Your task to perform on an android device: see sites visited before in the chrome app Image 0: 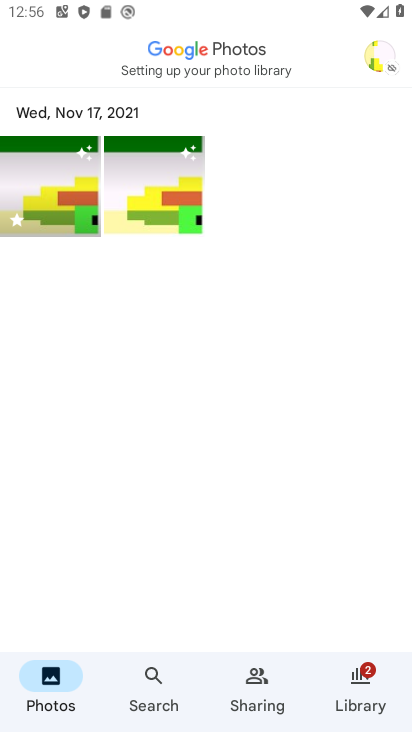
Step 0: press home button
Your task to perform on an android device: see sites visited before in the chrome app Image 1: 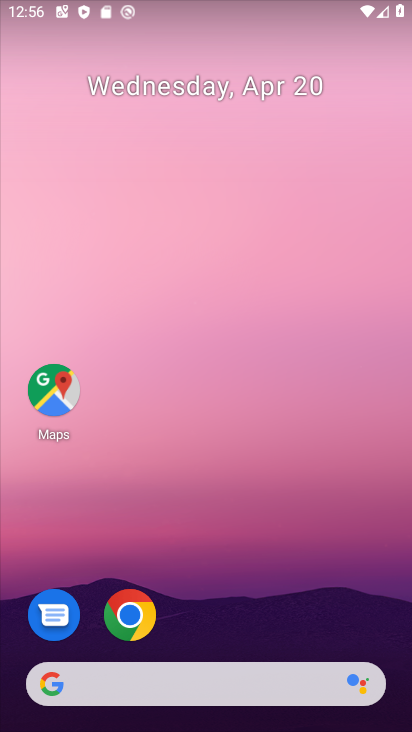
Step 1: click (132, 617)
Your task to perform on an android device: see sites visited before in the chrome app Image 2: 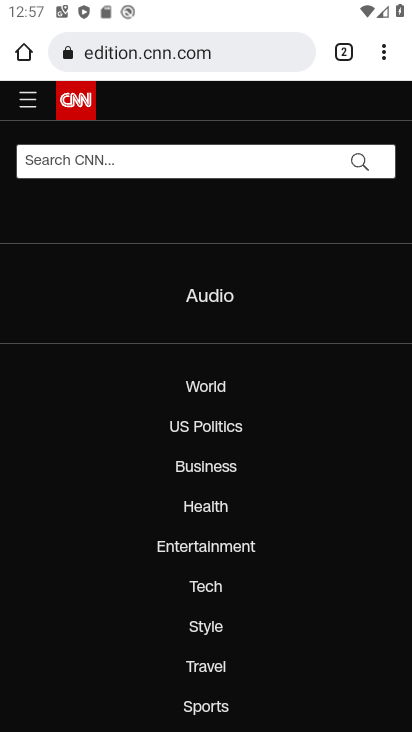
Step 2: click (382, 42)
Your task to perform on an android device: see sites visited before in the chrome app Image 3: 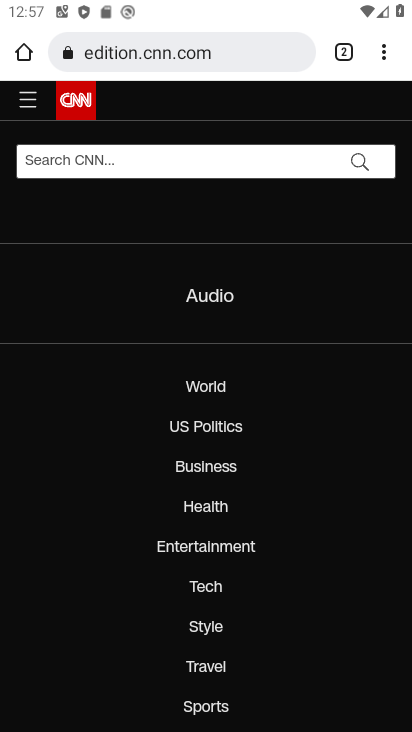
Step 3: click (384, 47)
Your task to perform on an android device: see sites visited before in the chrome app Image 4: 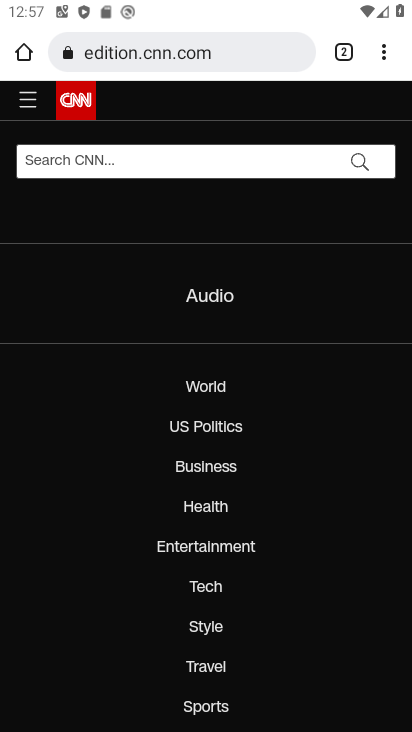
Step 4: click (384, 47)
Your task to perform on an android device: see sites visited before in the chrome app Image 5: 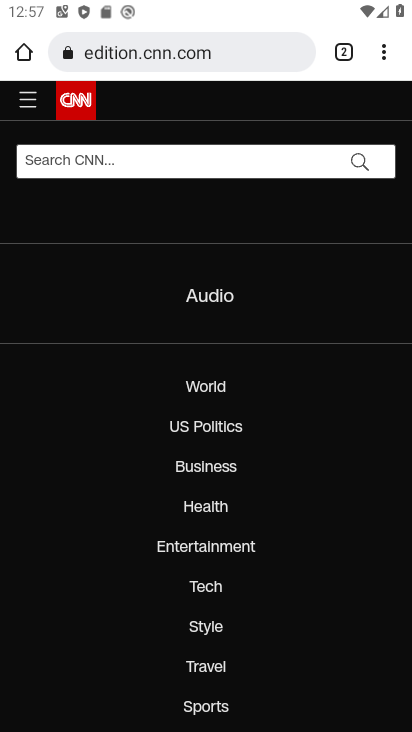
Step 5: click (384, 47)
Your task to perform on an android device: see sites visited before in the chrome app Image 6: 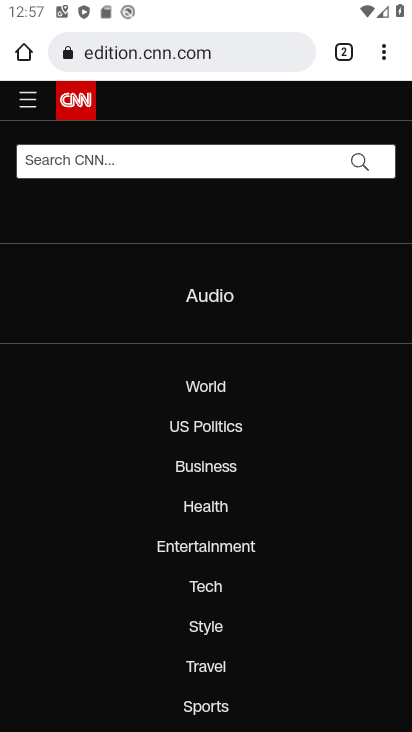
Step 6: click (384, 47)
Your task to perform on an android device: see sites visited before in the chrome app Image 7: 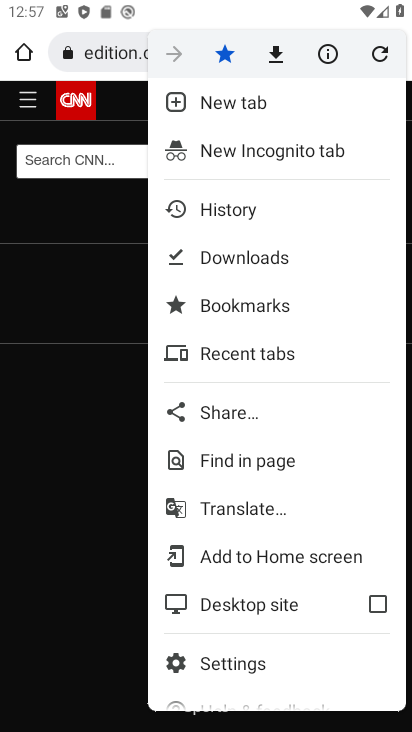
Step 7: click (221, 254)
Your task to perform on an android device: see sites visited before in the chrome app Image 8: 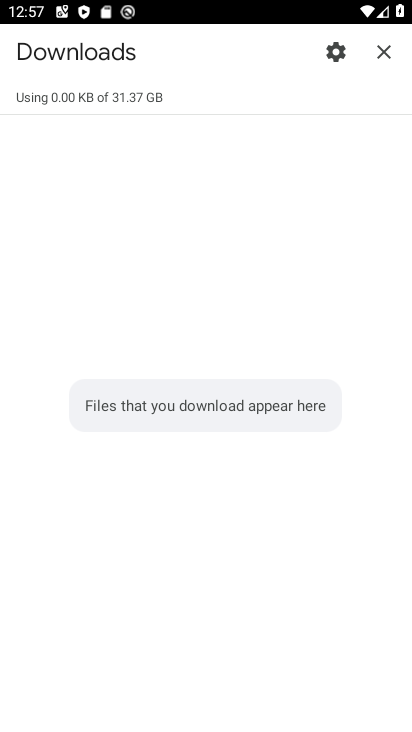
Step 8: task complete